Your task to perform on an android device: open app "Reddit" (install if not already installed) and enter user name: "issues@yahoo.com" and password: "belt" Image 0: 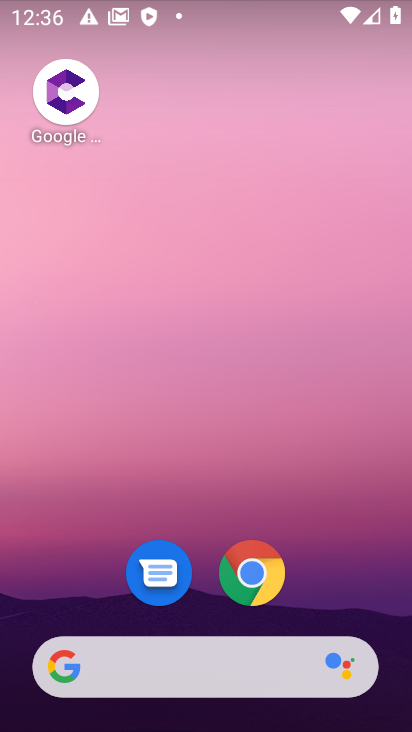
Step 0: drag from (311, 609) to (319, 40)
Your task to perform on an android device: open app "Reddit" (install if not already installed) and enter user name: "issues@yahoo.com" and password: "belt" Image 1: 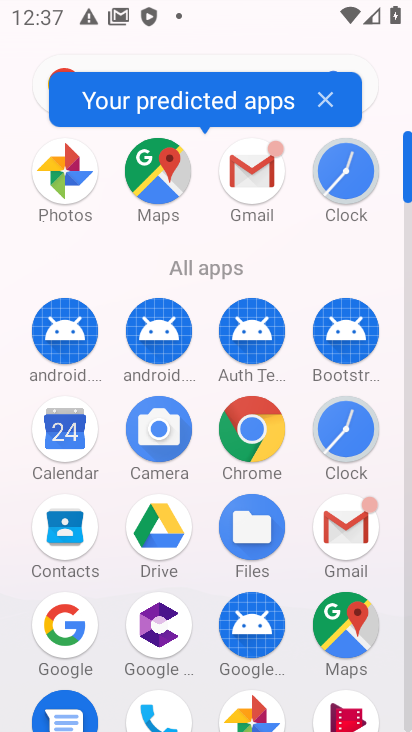
Step 1: drag from (300, 483) to (307, 18)
Your task to perform on an android device: open app "Reddit" (install if not already installed) and enter user name: "issues@yahoo.com" and password: "belt" Image 2: 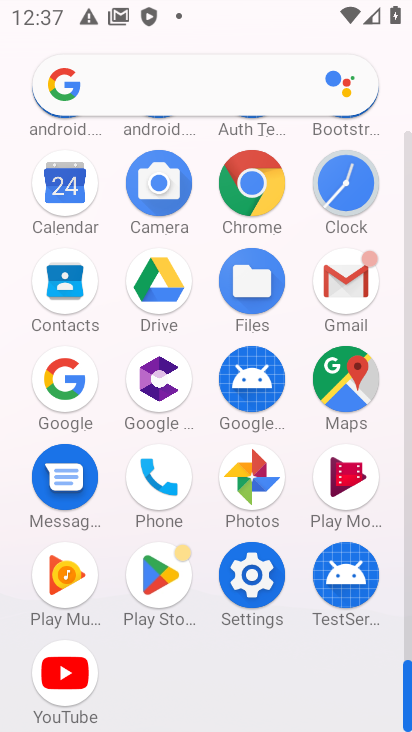
Step 2: click (151, 570)
Your task to perform on an android device: open app "Reddit" (install if not already installed) and enter user name: "issues@yahoo.com" and password: "belt" Image 3: 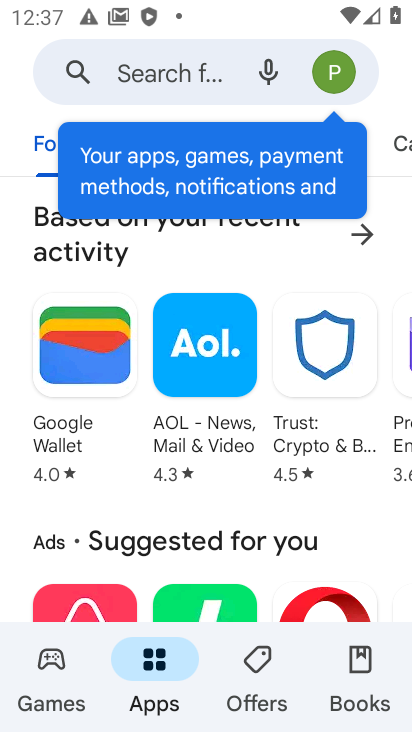
Step 3: click (137, 77)
Your task to perform on an android device: open app "Reddit" (install if not already installed) and enter user name: "issues@yahoo.com" and password: "belt" Image 4: 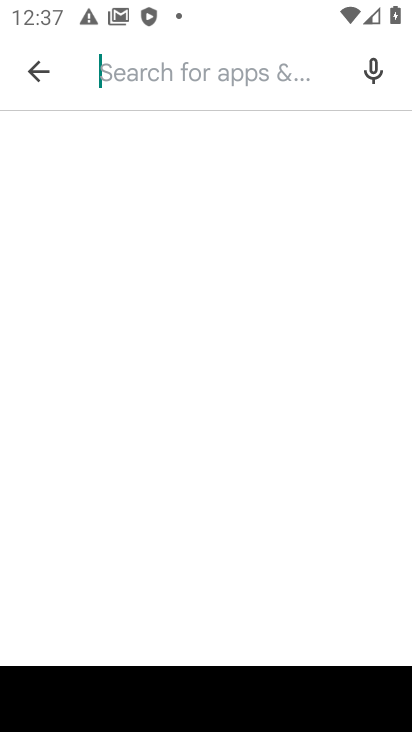
Step 4: type "Reddit"
Your task to perform on an android device: open app "Reddit" (install if not already installed) and enter user name: "issues@yahoo.com" and password: "belt" Image 5: 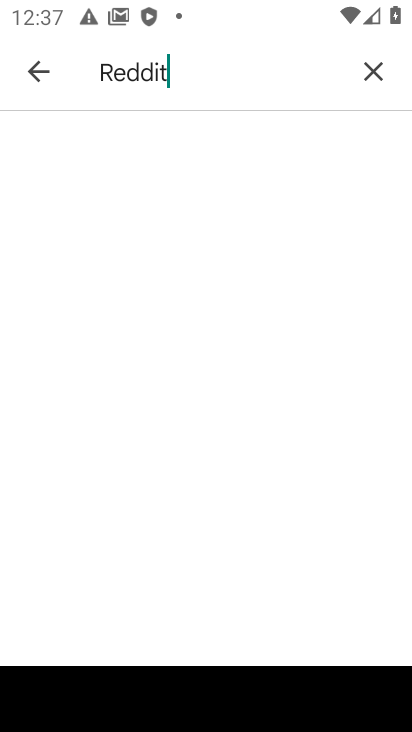
Step 5: type ""
Your task to perform on an android device: open app "Reddit" (install if not already installed) and enter user name: "issues@yahoo.com" and password: "belt" Image 6: 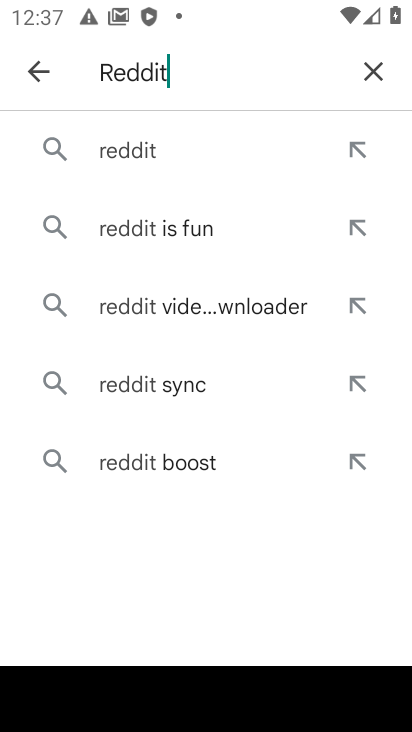
Step 6: click (176, 153)
Your task to perform on an android device: open app "Reddit" (install if not already installed) and enter user name: "issues@yahoo.com" and password: "belt" Image 7: 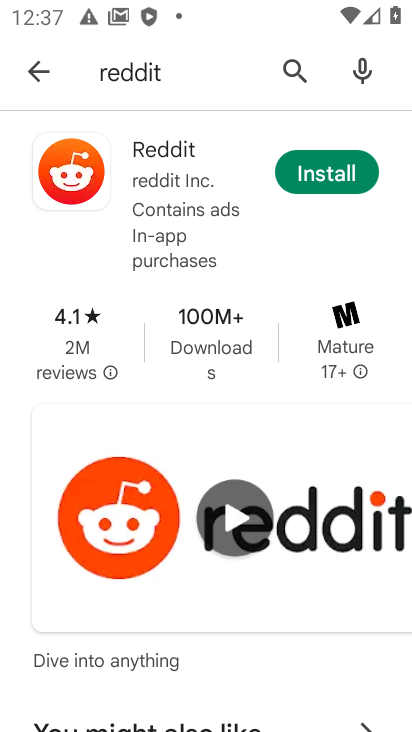
Step 7: click (330, 176)
Your task to perform on an android device: open app "Reddit" (install if not already installed) and enter user name: "issues@yahoo.com" and password: "belt" Image 8: 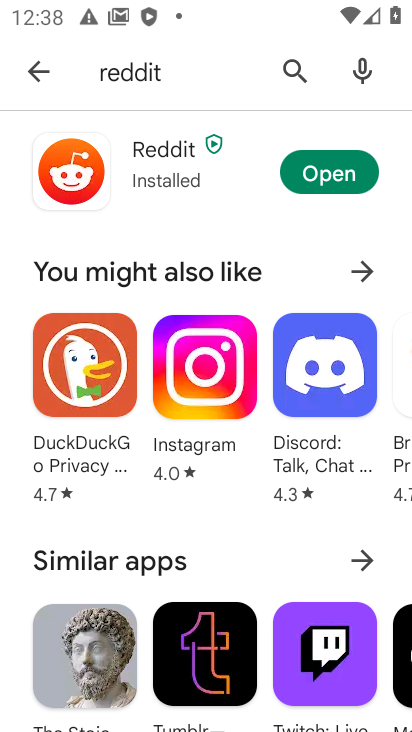
Step 8: click (325, 174)
Your task to perform on an android device: open app "Reddit" (install if not already installed) and enter user name: "issues@yahoo.com" and password: "belt" Image 9: 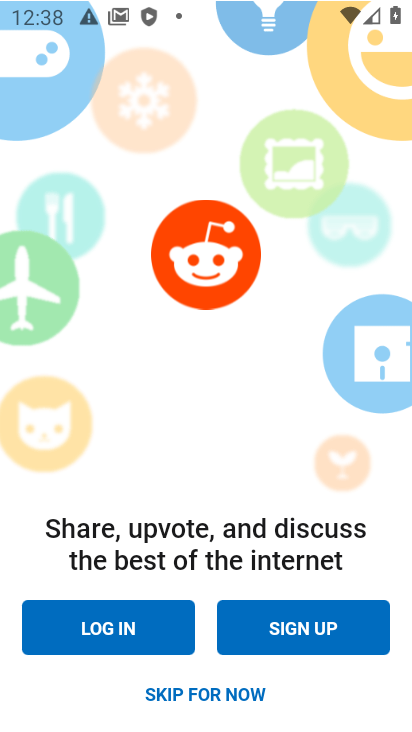
Step 9: click (113, 619)
Your task to perform on an android device: open app "Reddit" (install if not already installed) and enter user name: "issues@yahoo.com" and password: "belt" Image 10: 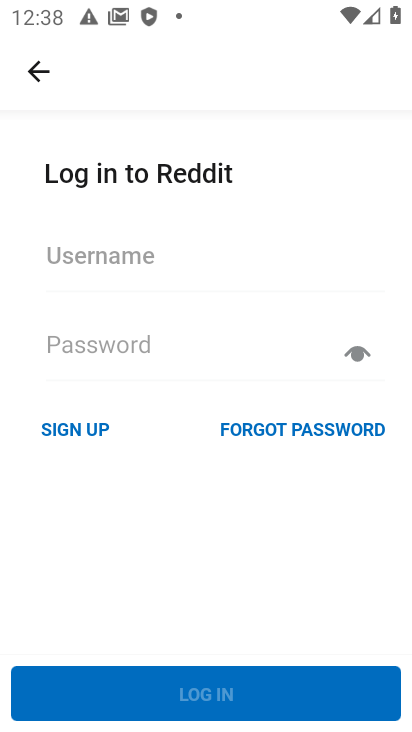
Step 10: click (102, 251)
Your task to perform on an android device: open app "Reddit" (install if not already installed) and enter user name: "issues@yahoo.com" and password: "belt" Image 11: 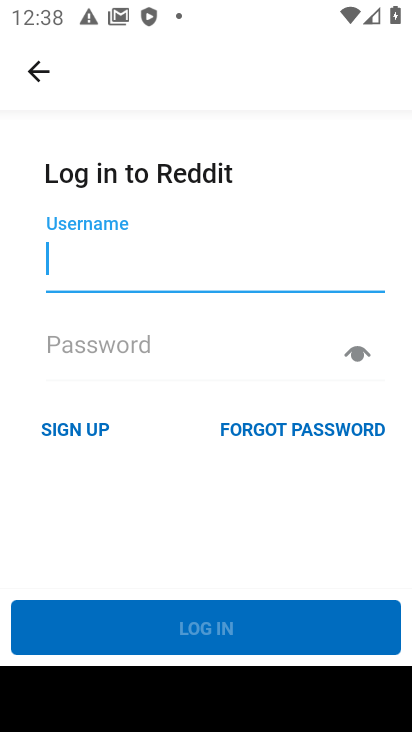
Step 11: type "issues@yahoo.com"
Your task to perform on an android device: open app "Reddit" (install if not already installed) and enter user name: "issues@yahoo.com" and password: "belt" Image 12: 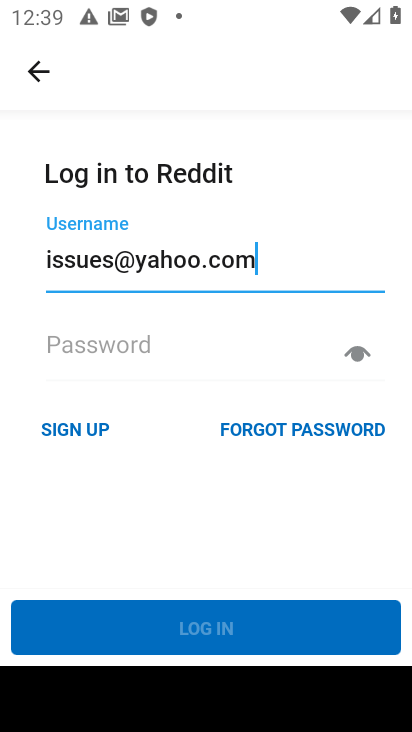
Step 12: click (92, 337)
Your task to perform on an android device: open app "Reddit" (install if not already installed) and enter user name: "issues@yahoo.com" and password: "belt" Image 13: 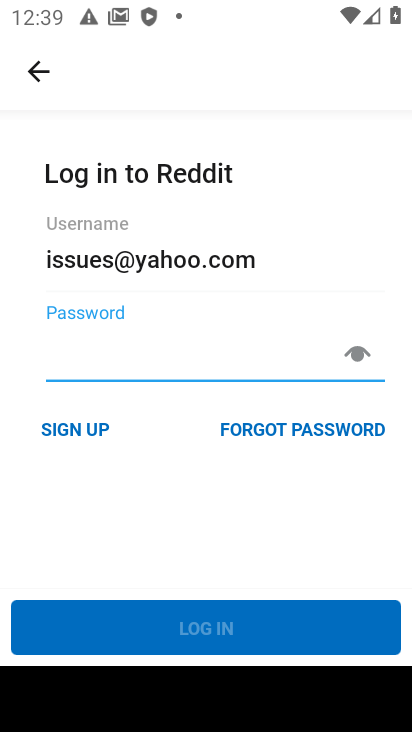
Step 13: type "belt"
Your task to perform on an android device: open app "Reddit" (install if not already installed) and enter user name: "issues@yahoo.com" and password: "belt" Image 14: 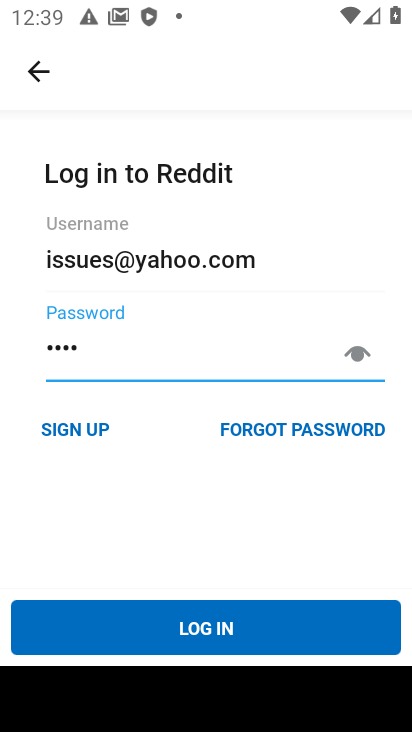
Step 14: click (198, 635)
Your task to perform on an android device: open app "Reddit" (install if not already installed) and enter user name: "issues@yahoo.com" and password: "belt" Image 15: 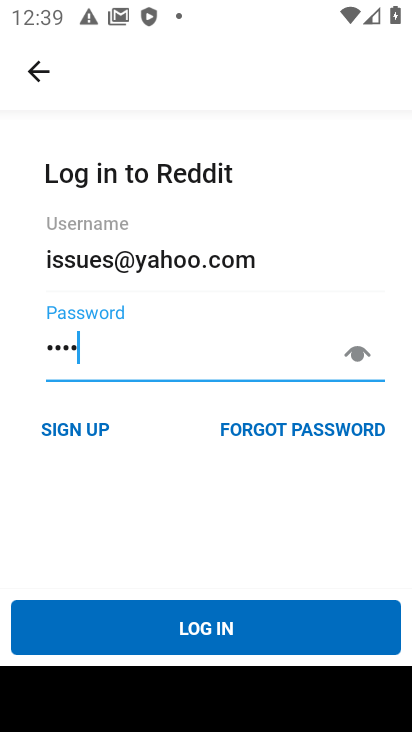
Step 15: task complete